Your task to perform on an android device: Open Google Image 0: 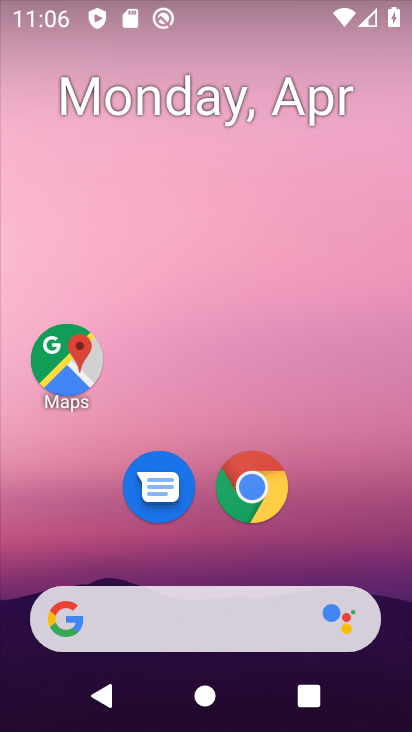
Step 0: drag from (404, 622) to (334, 219)
Your task to perform on an android device: Open Google Image 1: 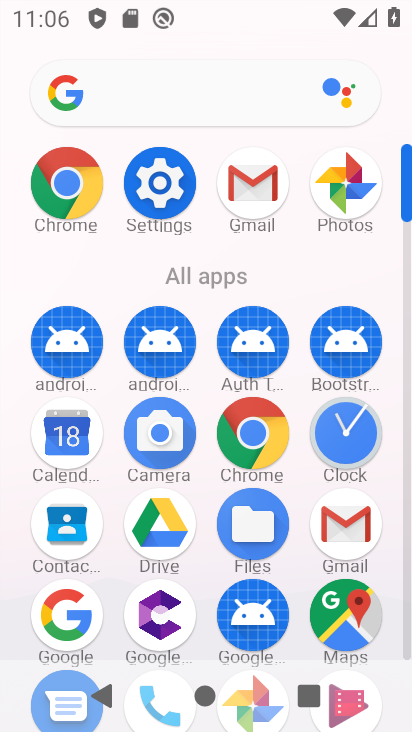
Step 1: click (64, 626)
Your task to perform on an android device: Open Google Image 2: 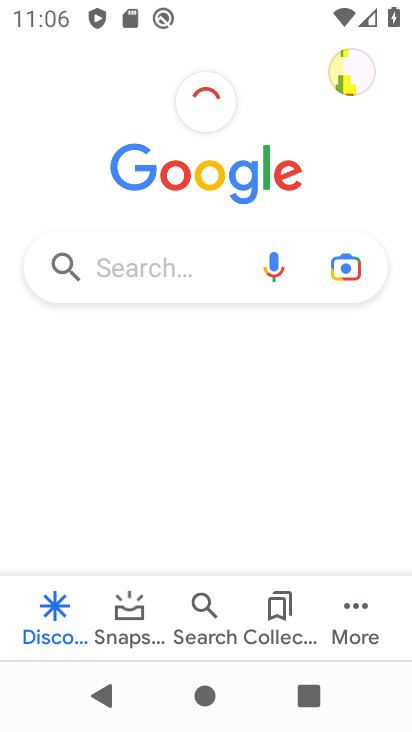
Step 2: task complete